Your task to perform on an android device: refresh tabs in the chrome app Image 0: 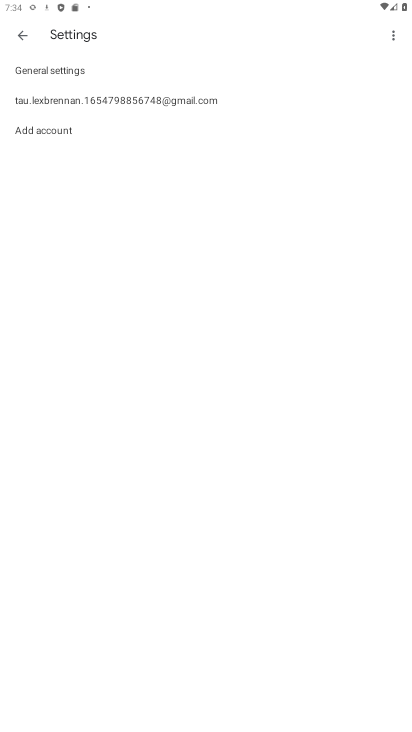
Step 0: press home button
Your task to perform on an android device: refresh tabs in the chrome app Image 1: 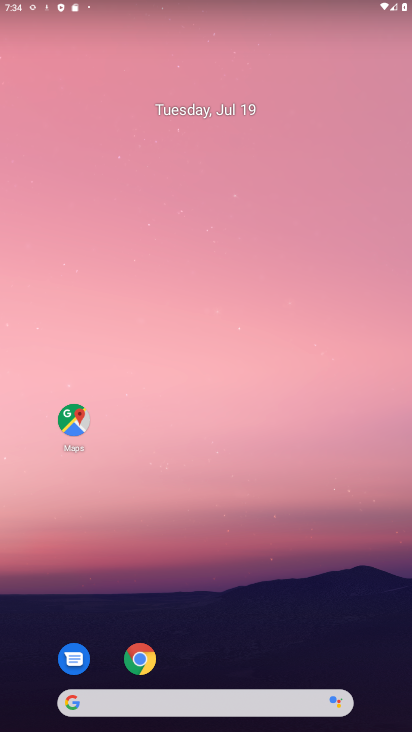
Step 1: click (143, 656)
Your task to perform on an android device: refresh tabs in the chrome app Image 2: 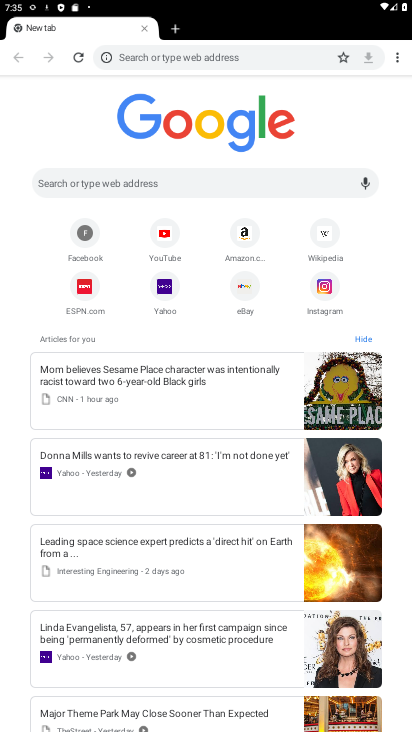
Step 2: click (72, 55)
Your task to perform on an android device: refresh tabs in the chrome app Image 3: 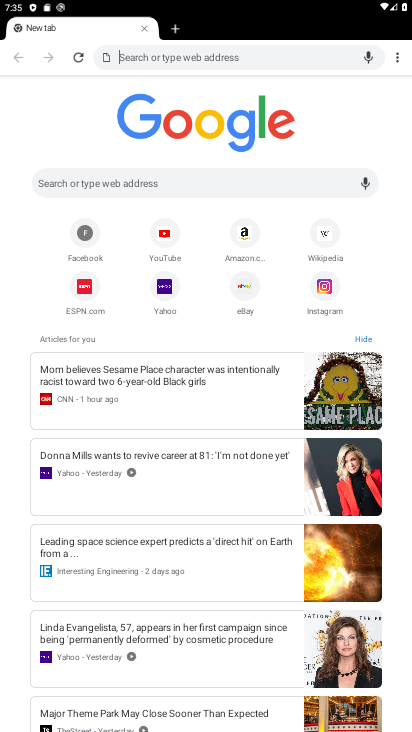
Step 3: task complete